Your task to perform on an android device: Open settings on Google Maps Image 0: 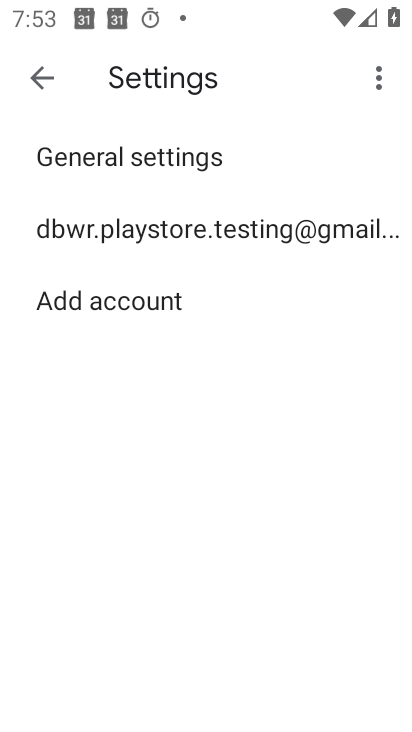
Step 0: press home button
Your task to perform on an android device: Open settings on Google Maps Image 1: 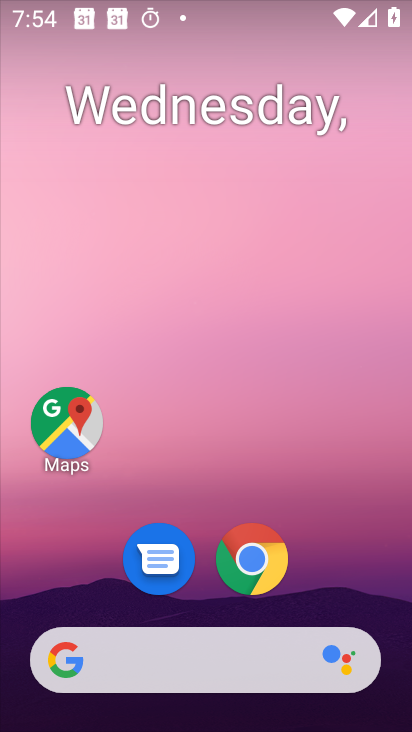
Step 1: click (65, 427)
Your task to perform on an android device: Open settings on Google Maps Image 2: 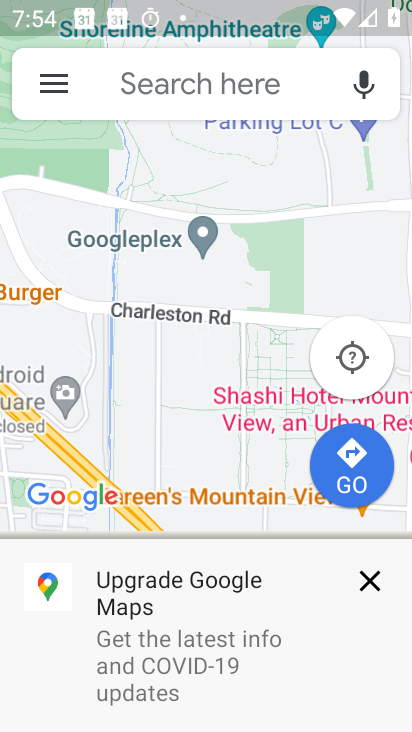
Step 2: click (42, 92)
Your task to perform on an android device: Open settings on Google Maps Image 3: 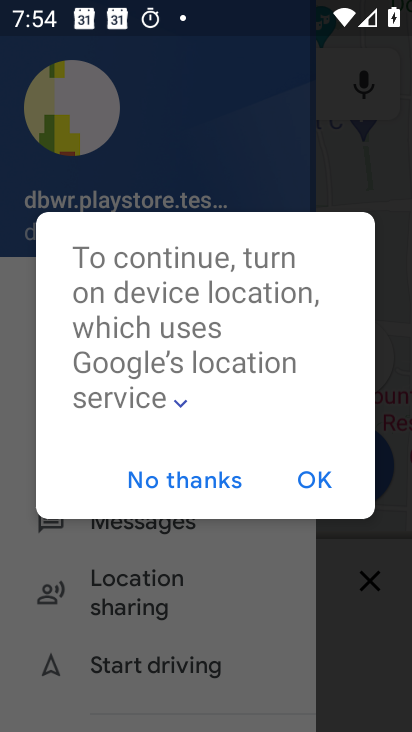
Step 3: click (179, 473)
Your task to perform on an android device: Open settings on Google Maps Image 4: 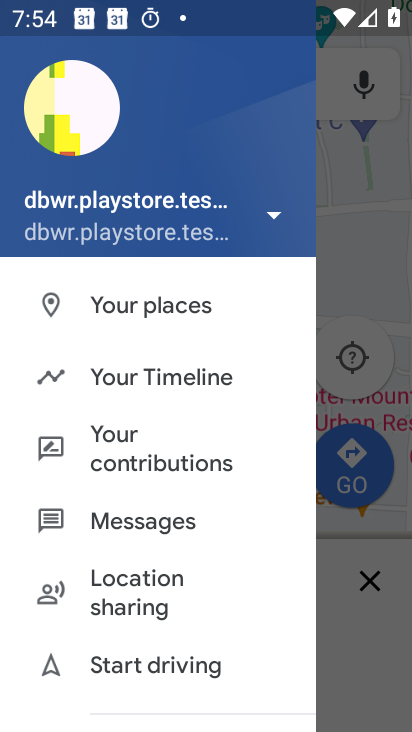
Step 4: drag from (206, 609) to (208, 108)
Your task to perform on an android device: Open settings on Google Maps Image 5: 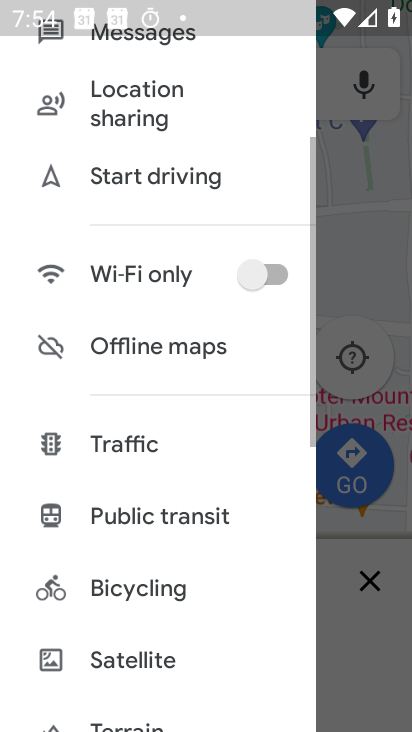
Step 5: drag from (201, 594) to (173, 195)
Your task to perform on an android device: Open settings on Google Maps Image 6: 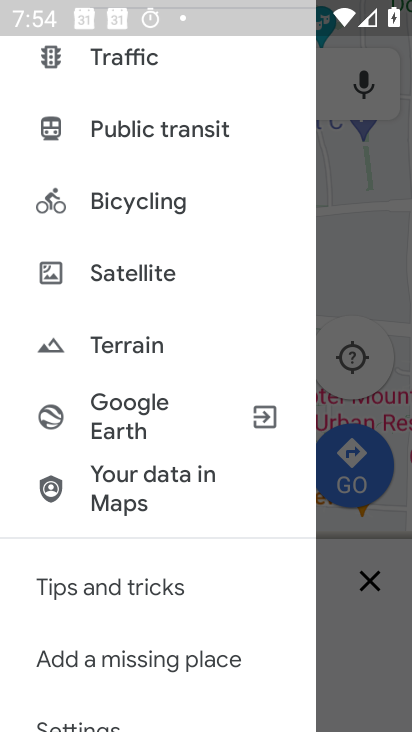
Step 6: drag from (169, 594) to (177, 234)
Your task to perform on an android device: Open settings on Google Maps Image 7: 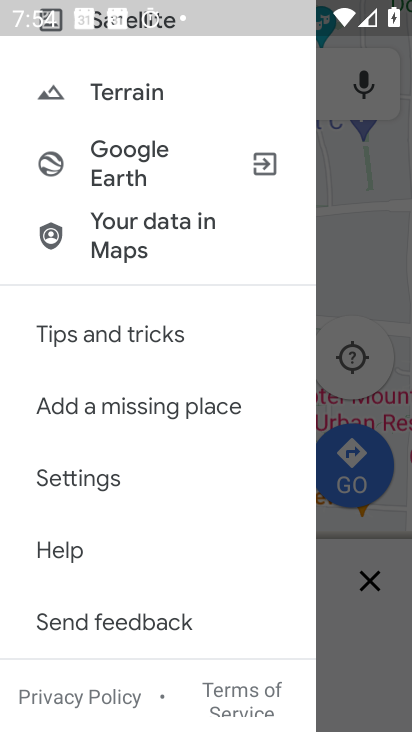
Step 7: click (76, 473)
Your task to perform on an android device: Open settings on Google Maps Image 8: 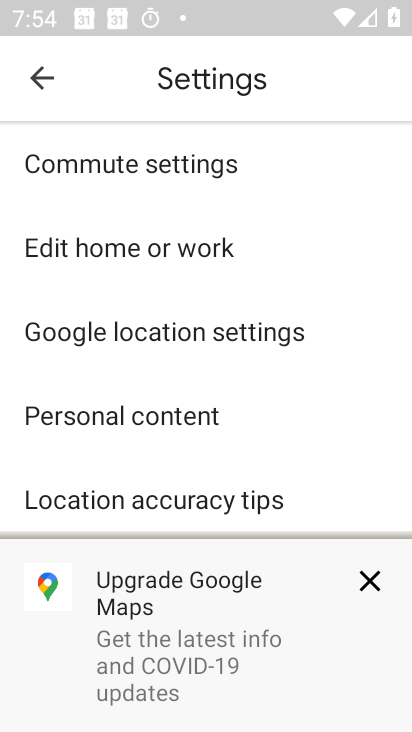
Step 8: click (379, 591)
Your task to perform on an android device: Open settings on Google Maps Image 9: 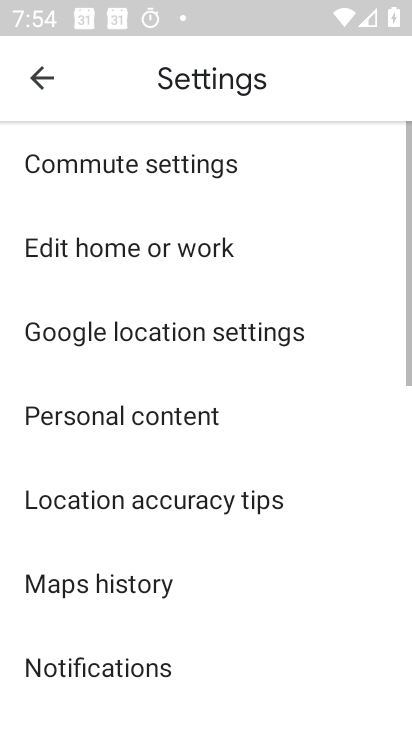
Step 9: task complete